Your task to perform on an android device: Open Youtube and go to the subscriptions tab Image 0: 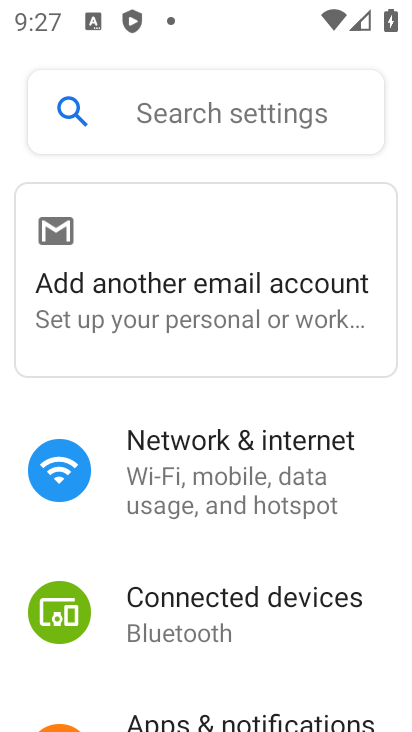
Step 0: press home button
Your task to perform on an android device: Open Youtube and go to the subscriptions tab Image 1: 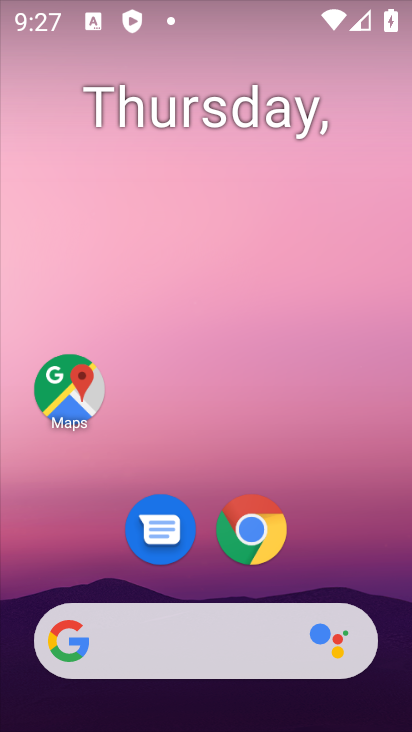
Step 1: drag from (335, 576) to (348, 152)
Your task to perform on an android device: Open Youtube and go to the subscriptions tab Image 2: 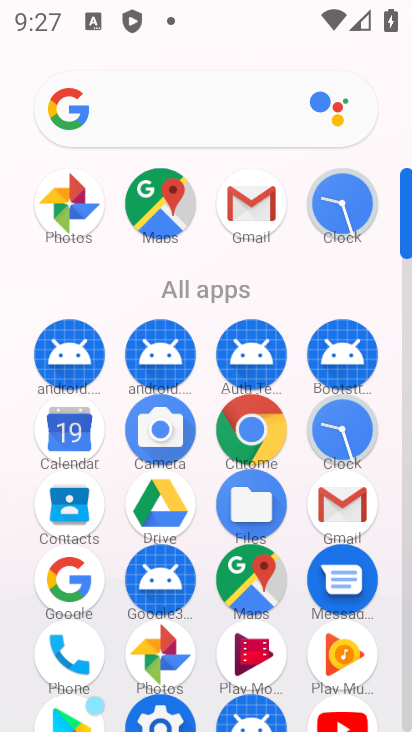
Step 2: drag from (229, 468) to (247, 262)
Your task to perform on an android device: Open Youtube and go to the subscriptions tab Image 3: 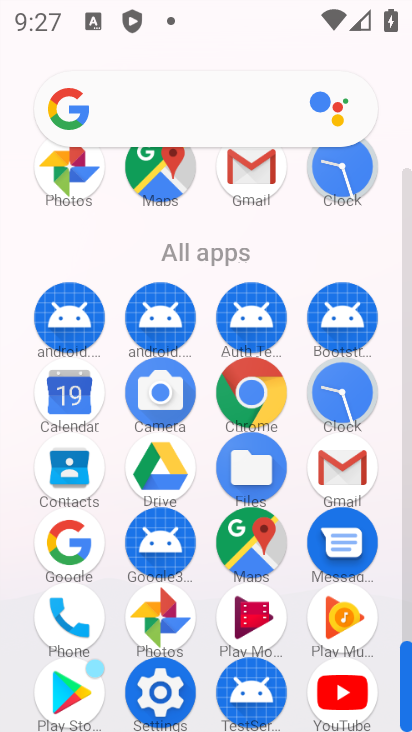
Step 3: click (344, 688)
Your task to perform on an android device: Open Youtube and go to the subscriptions tab Image 4: 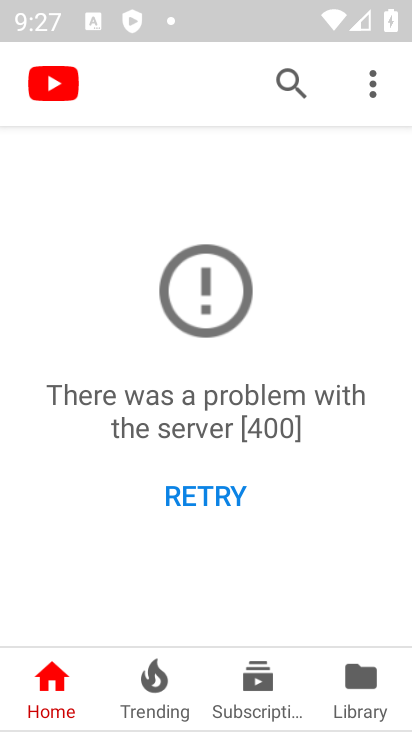
Step 4: click (250, 699)
Your task to perform on an android device: Open Youtube and go to the subscriptions tab Image 5: 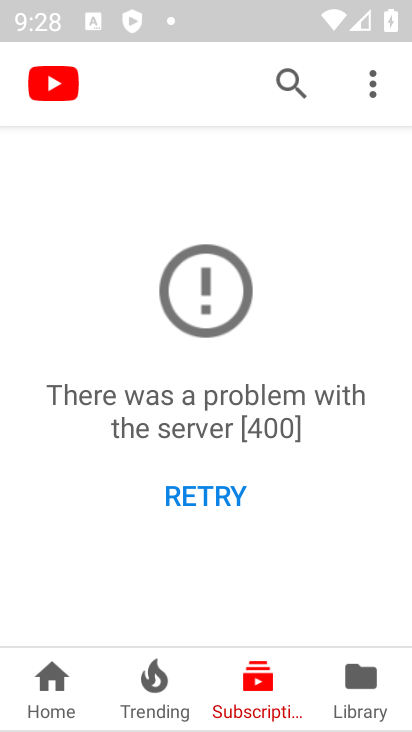
Step 5: task complete